Your task to perform on an android device: toggle notifications settings in the gmail app Image 0: 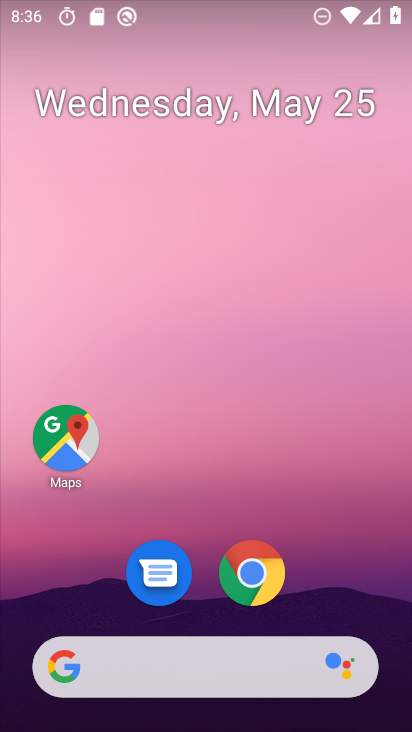
Step 0: drag from (378, 689) to (336, 193)
Your task to perform on an android device: toggle notifications settings in the gmail app Image 1: 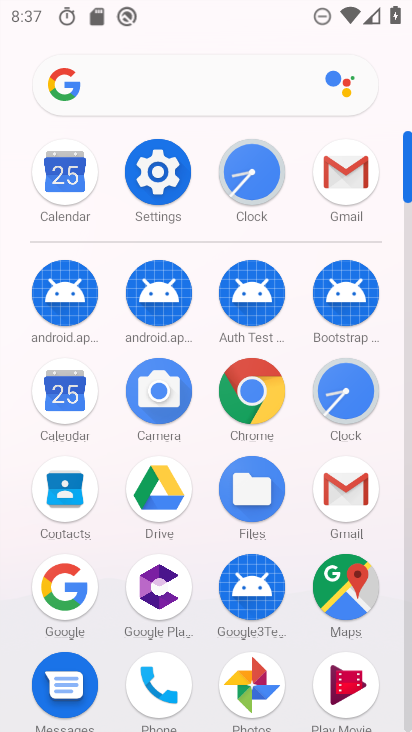
Step 1: click (337, 493)
Your task to perform on an android device: toggle notifications settings in the gmail app Image 2: 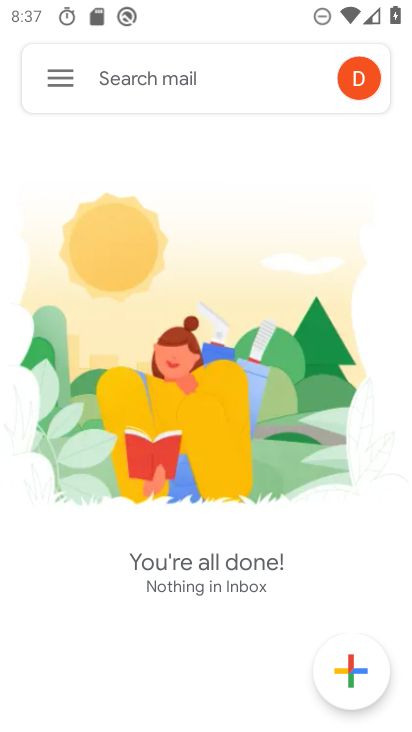
Step 2: click (64, 84)
Your task to perform on an android device: toggle notifications settings in the gmail app Image 3: 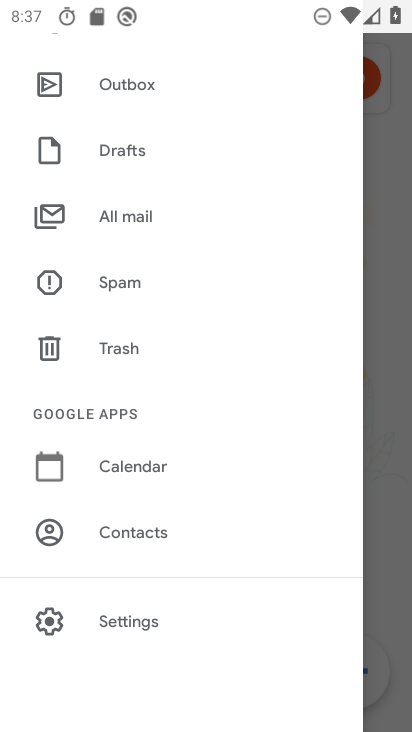
Step 3: click (125, 615)
Your task to perform on an android device: toggle notifications settings in the gmail app Image 4: 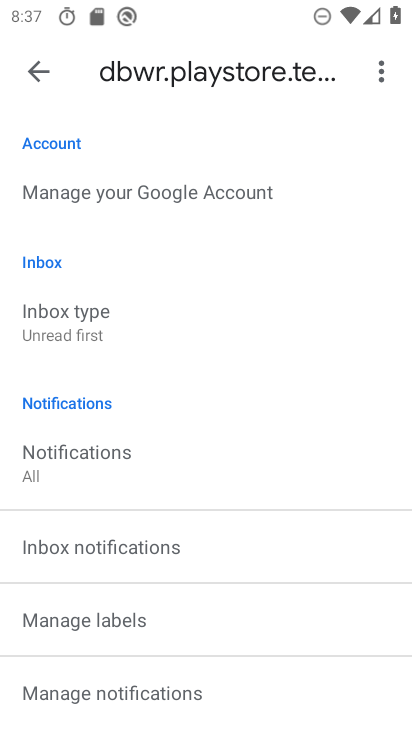
Step 4: click (25, 64)
Your task to perform on an android device: toggle notifications settings in the gmail app Image 5: 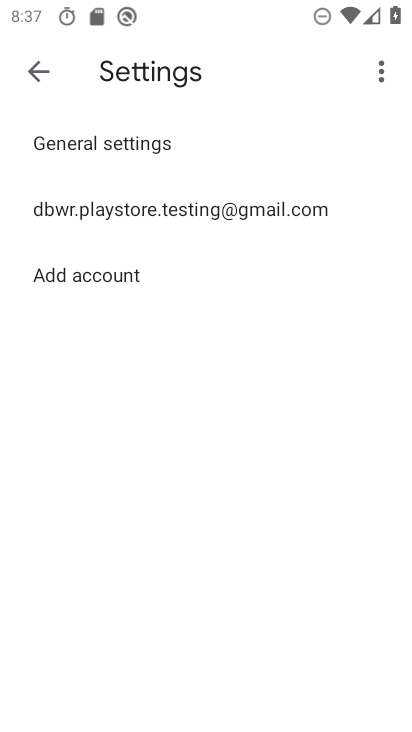
Step 5: click (109, 139)
Your task to perform on an android device: toggle notifications settings in the gmail app Image 6: 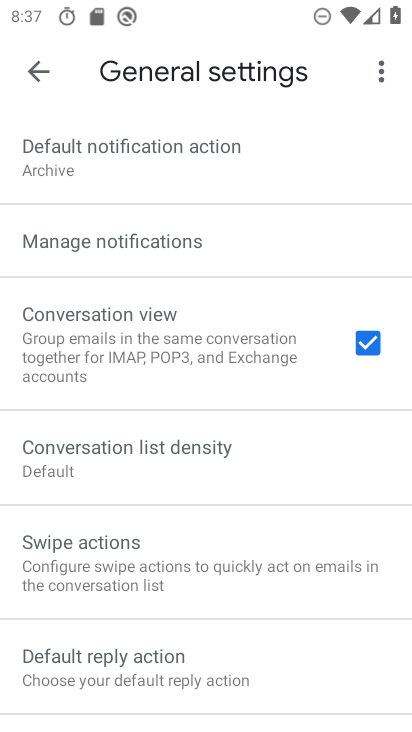
Step 6: click (125, 237)
Your task to perform on an android device: toggle notifications settings in the gmail app Image 7: 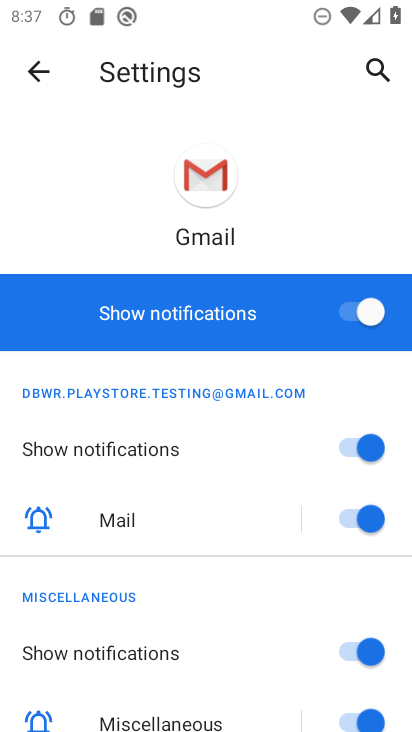
Step 7: click (341, 316)
Your task to perform on an android device: toggle notifications settings in the gmail app Image 8: 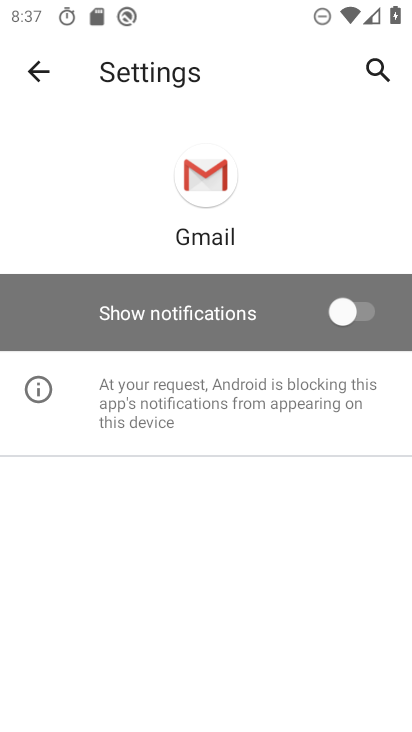
Step 8: task complete